Your task to perform on an android device: Go to display settings Image 0: 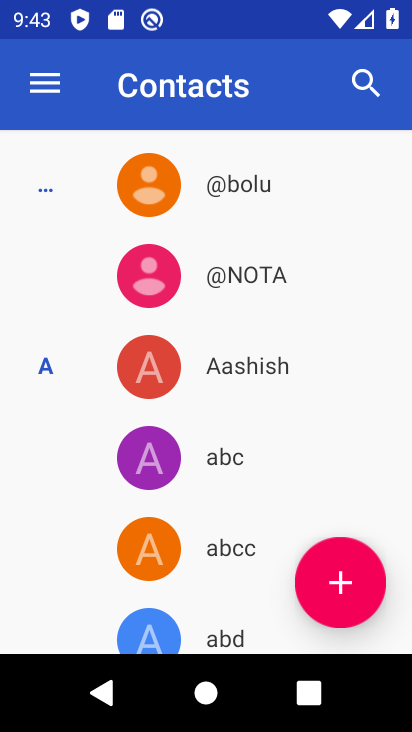
Step 0: press home button
Your task to perform on an android device: Go to display settings Image 1: 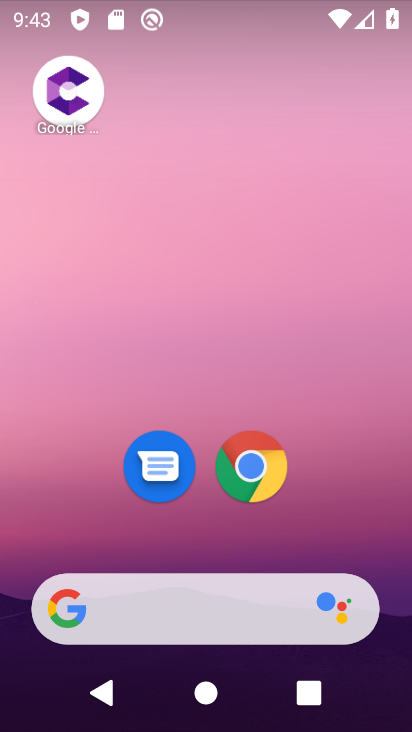
Step 1: drag from (108, 523) to (237, 146)
Your task to perform on an android device: Go to display settings Image 2: 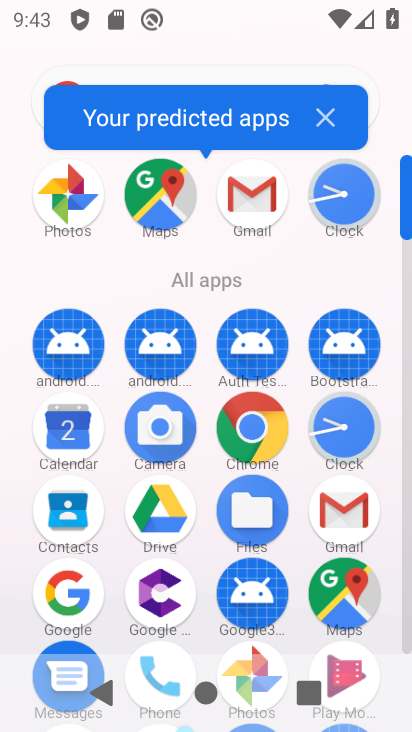
Step 2: drag from (179, 567) to (229, 311)
Your task to perform on an android device: Go to display settings Image 3: 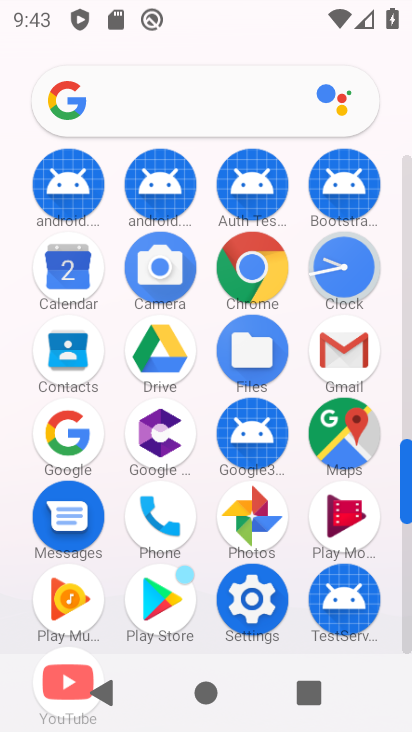
Step 3: click (252, 592)
Your task to perform on an android device: Go to display settings Image 4: 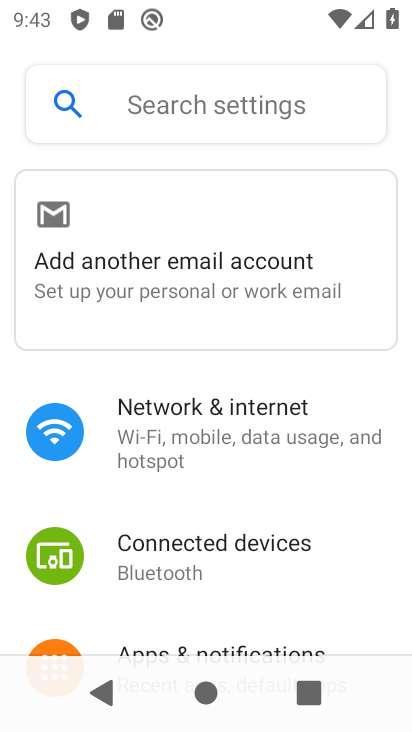
Step 4: drag from (211, 607) to (296, 184)
Your task to perform on an android device: Go to display settings Image 5: 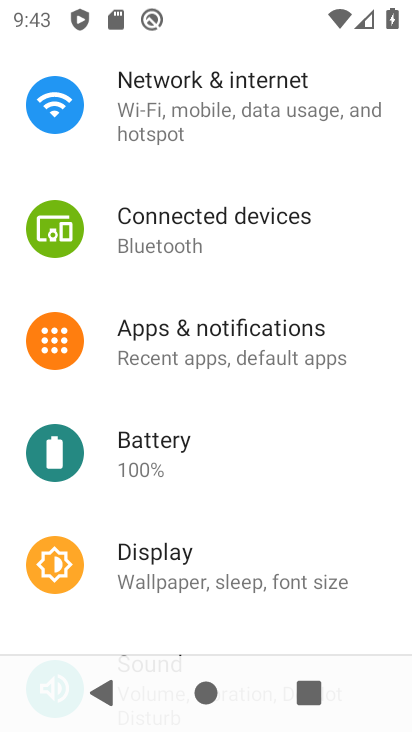
Step 5: click (176, 567)
Your task to perform on an android device: Go to display settings Image 6: 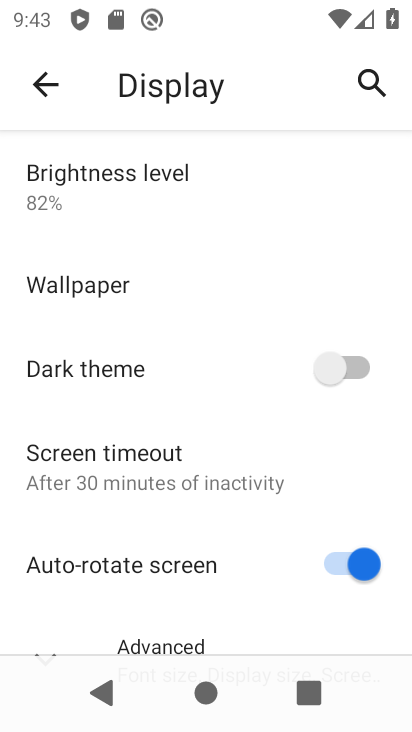
Step 6: task complete